Your task to perform on an android device: turn on priority inbox in the gmail app Image 0: 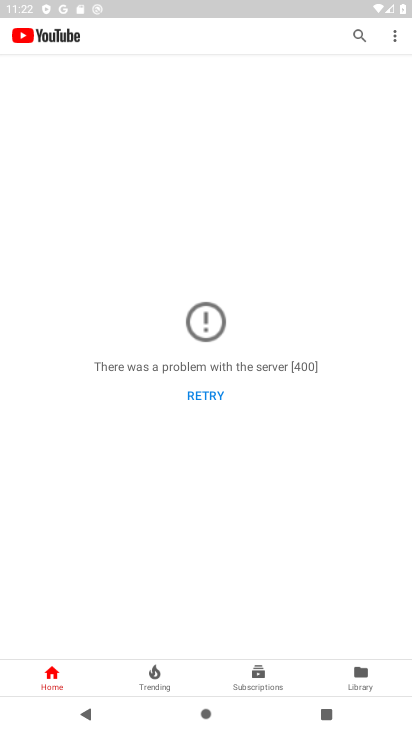
Step 0: press home button
Your task to perform on an android device: turn on priority inbox in the gmail app Image 1: 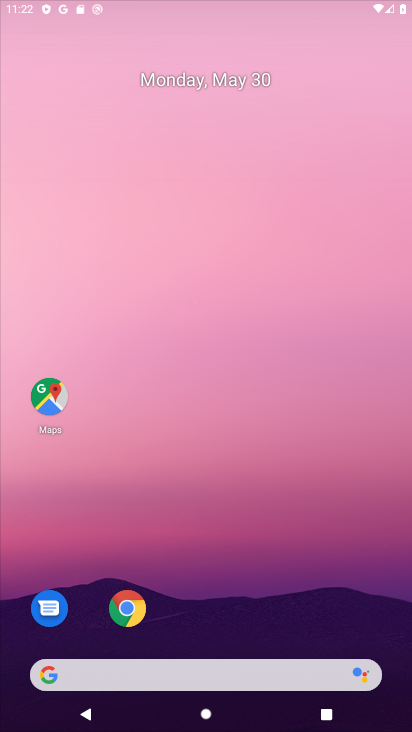
Step 1: drag from (216, 548) to (239, 8)
Your task to perform on an android device: turn on priority inbox in the gmail app Image 2: 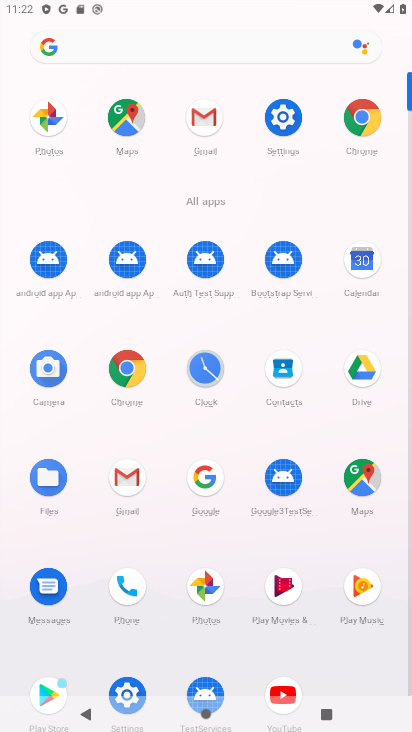
Step 2: click (202, 121)
Your task to perform on an android device: turn on priority inbox in the gmail app Image 3: 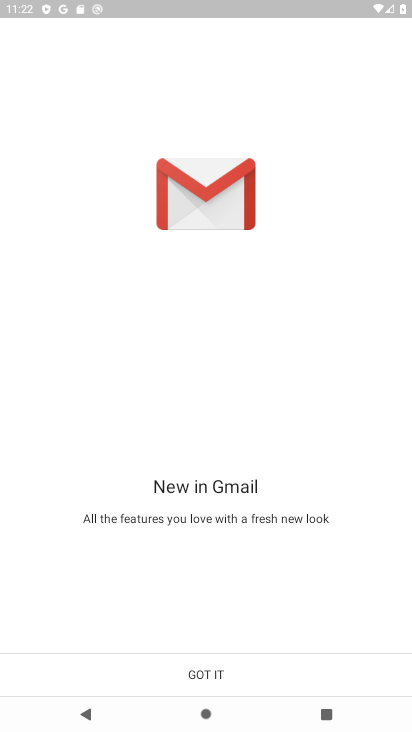
Step 3: click (188, 674)
Your task to perform on an android device: turn on priority inbox in the gmail app Image 4: 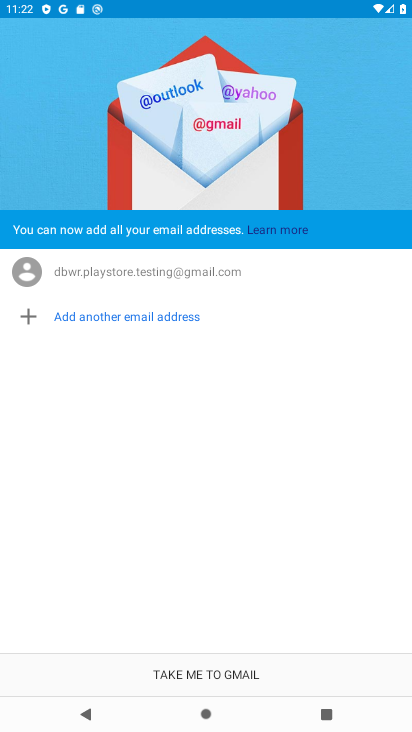
Step 4: click (188, 674)
Your task to perform on an android device: turn on priority inbox in the gmail app Image 5: 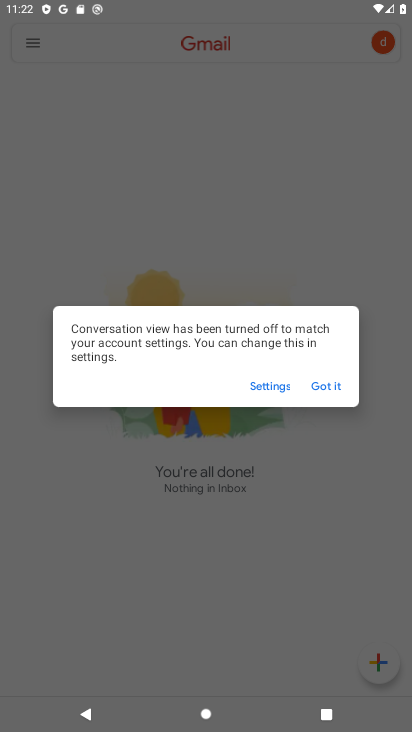
Step 5: click (272, 385)
Your task to perform on an android device: turn on priority inbox in the gmail app Image 6: 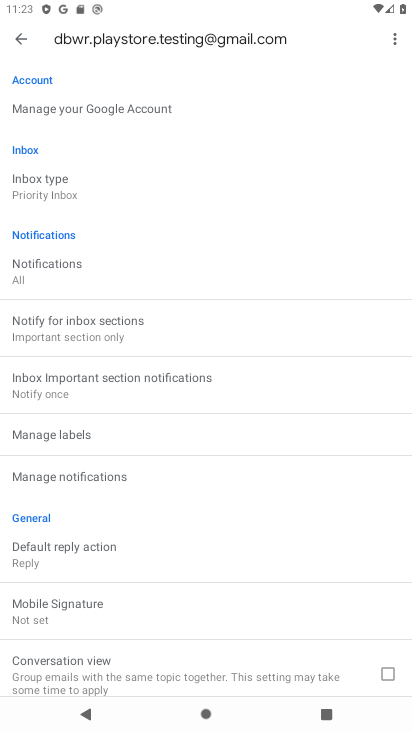
Step 6: task complete